Your task to perform on an android device: Go to accessibility settings Image 0: 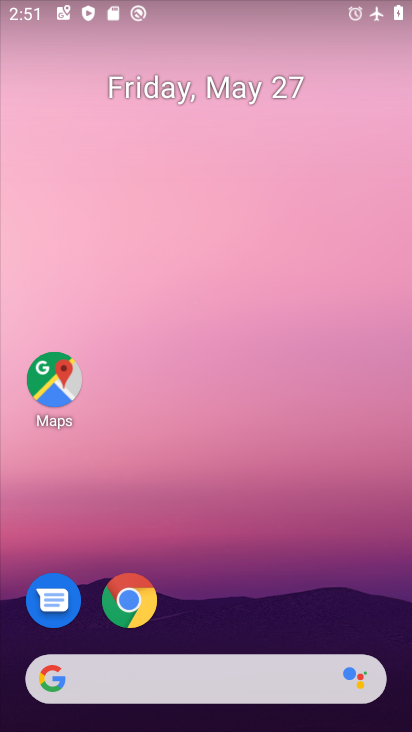
Step 0: drag from (220, 448) to (224, 33)
Your task to perform on an android device: Go to accessibility settings Image 1: 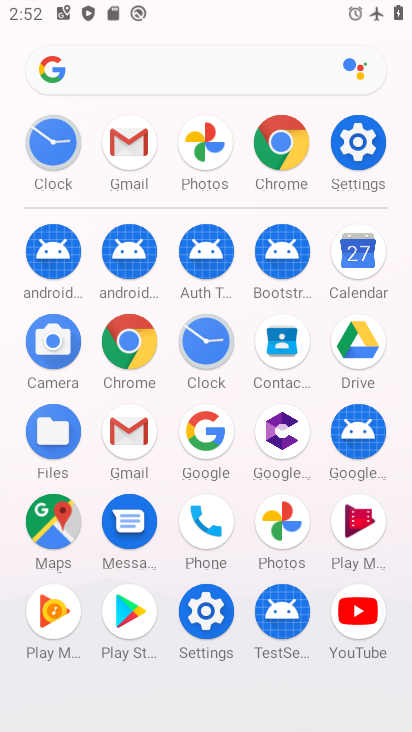
Step 1: drag from (5, 515) to (7, 215)
Your task to perform on an android device: Go to accessibility settings Image 2: 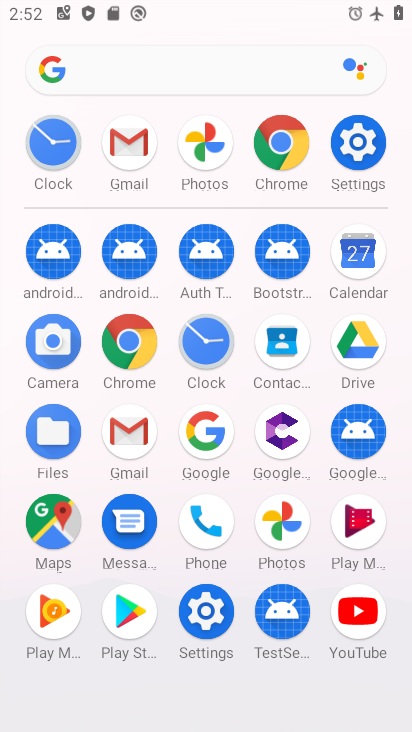
Step 2: click (208, 609)
Your task to perform on an android device: Go to accessibility settings Image 3: 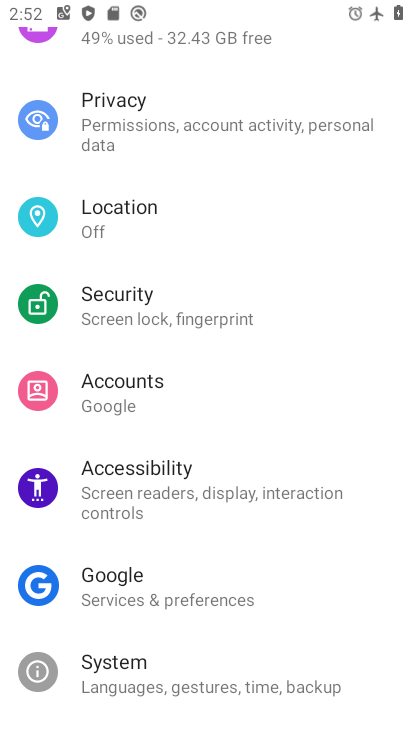
Step 3: drag from (279, 134) to (234, 559)
Your task to perform on an android device: Go to accessibility settings Image 4: 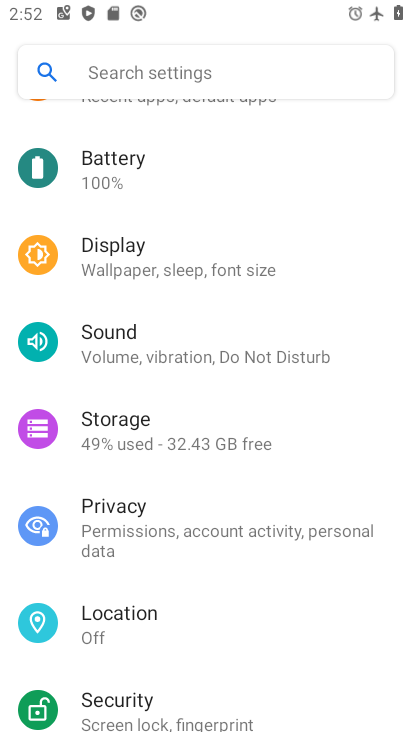
Step 4: drag from (275, 182) to (269, 580)
Your task to perform on an android device: Go to accessibility settings Image 5: 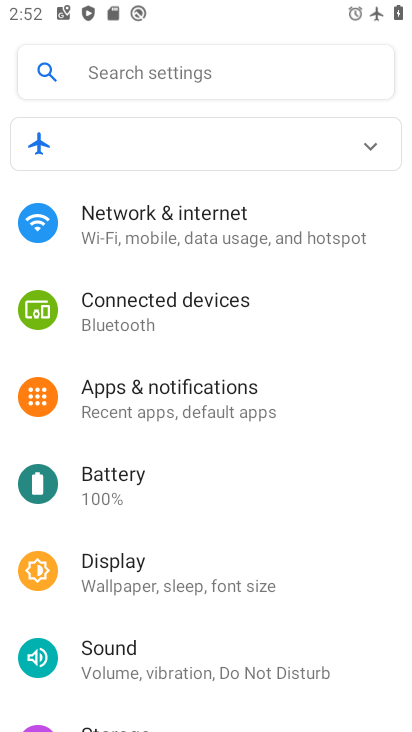
Step 5: drag from (186, 582) to (228, 198)
Your task to perform on an android device: Go to accessibility settings Image 6: 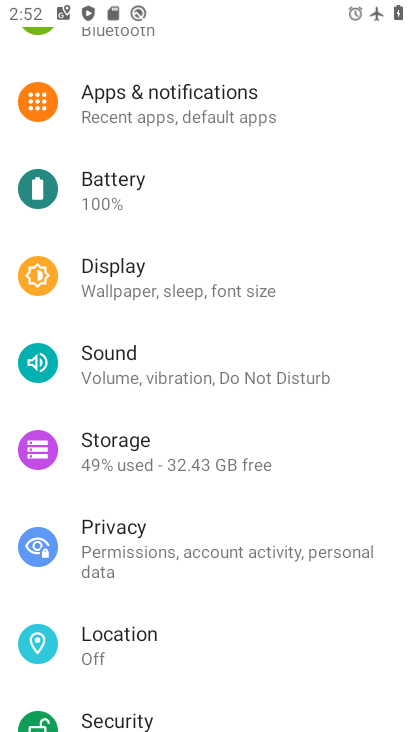
Step 6: drag from (196, 614) to (214, 168)
Your task to perform on an android device: Go to accessibility settings Image 7: 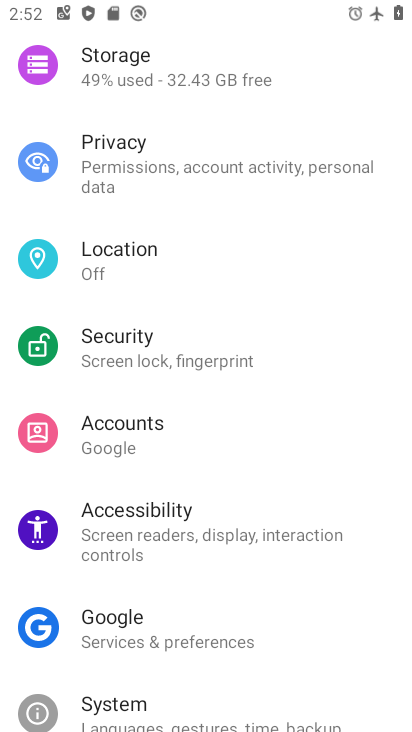
Step 7: drag from (177, 585) to (232, 179)
Your task to perform on an android device: Go to accessibility settings Image 8: 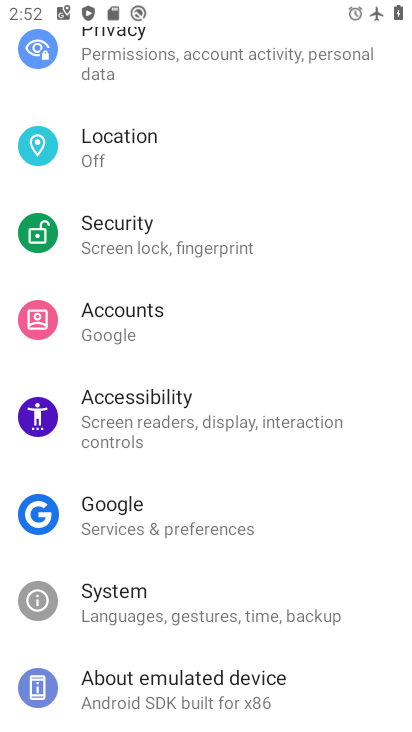
Step 8: drag from (181, 597) to (196, 283)
Your task to perform on an android device: Go to accessibility settings Image 9: 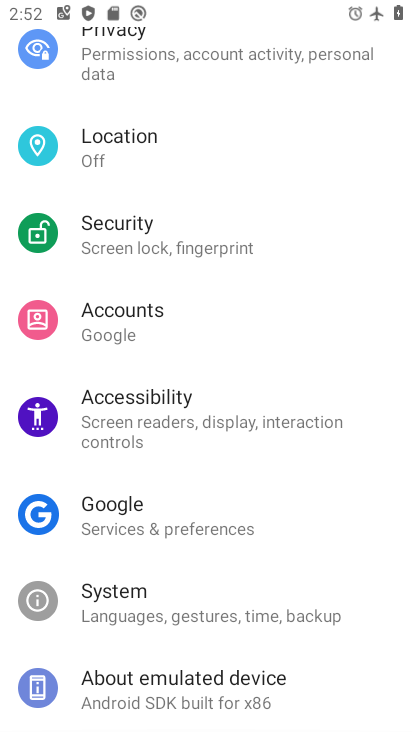
Step 9: click (198, 422)
Your task to perform on an android device: Go to accessibility settings Image 10: 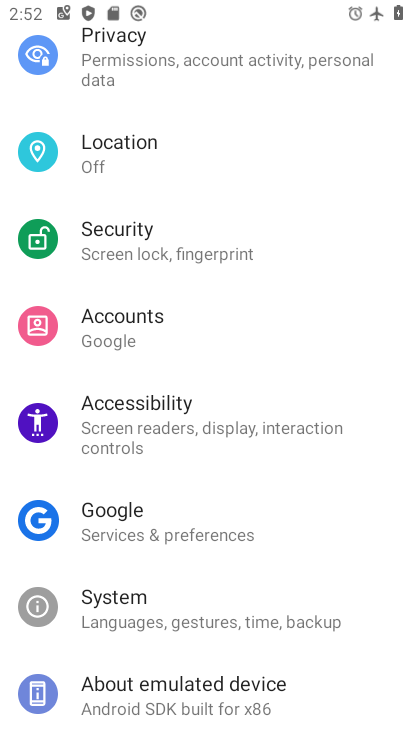
Step 10: click (111, 411)
Your task to perform on an android device: Go to accessibility settings Image 11: 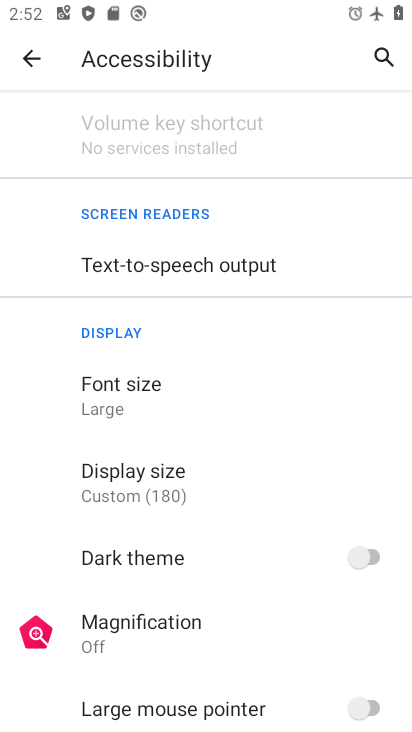
Step 11: task complete